Your task to perform on an android device: open chrome and create a bookmark for the current page Image 0: 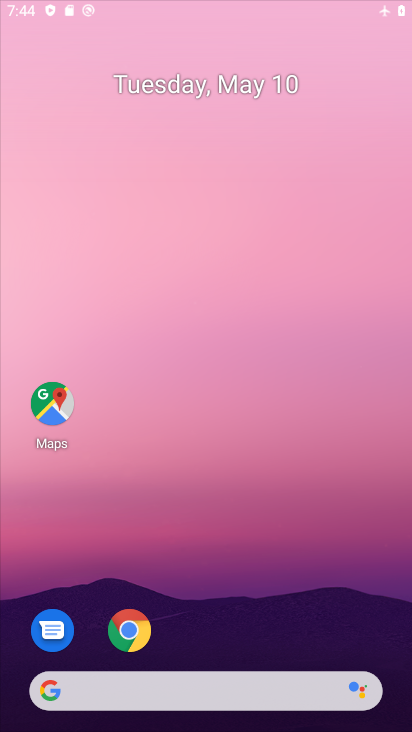
Step 0: drag from (178, 657) to (102, 2)
Your task to perform on an android device: open chrome and create a bookmark for the current page Image 1: 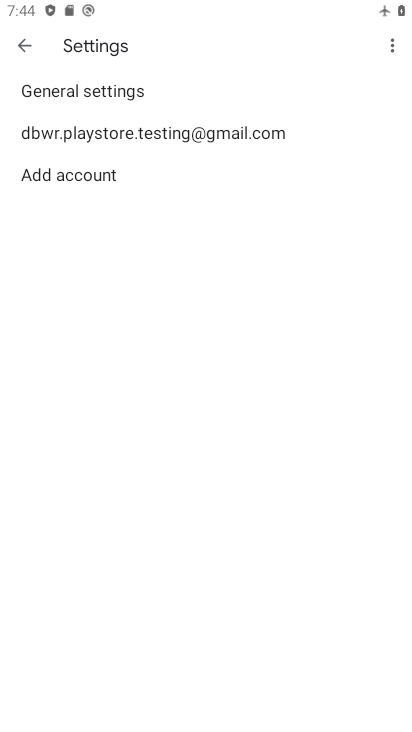
Step 1: press home button
Your task to perform on an android device: open chrome and create a bookmark for the current page Image 2: 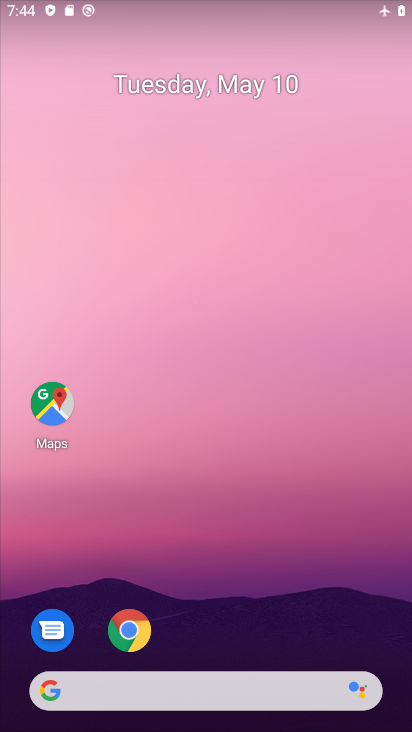
Step 2: click (135, 625)
Your task to perform on an android device: open chrome and create a bookmark for the current page Image 3: 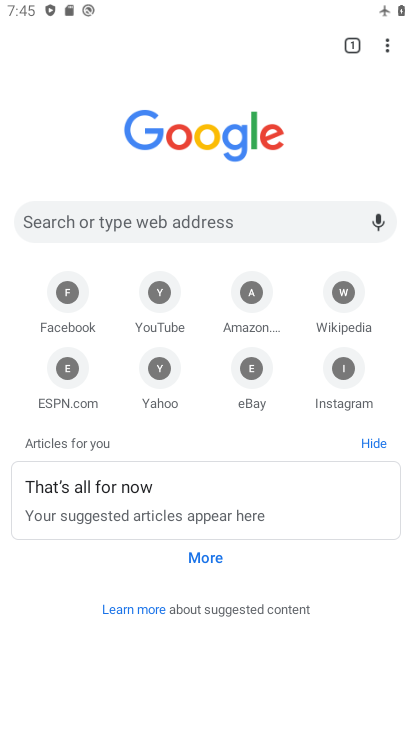
Step 3: click (385, 38)
Your task to perform on an android device: open chrome and create a bookmark for the current page Image 4: 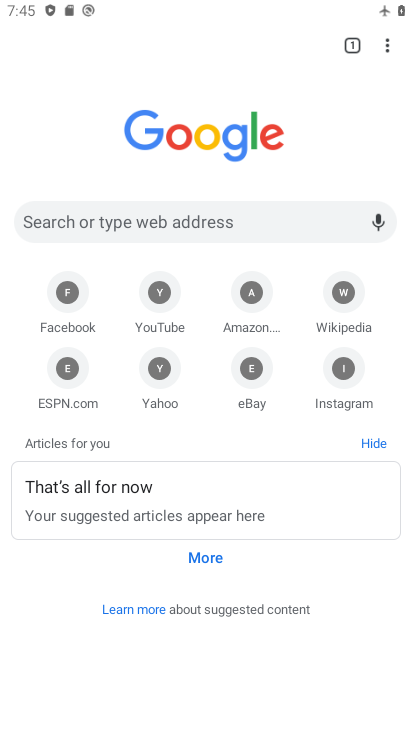
Step 4: click (385, 38)
Your task to perform on an android device: open chrome and create a bookmark for the current page Image 5: 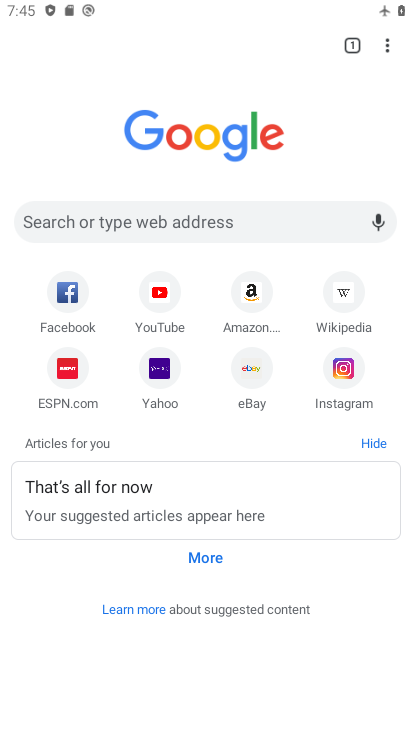
Step 5: task complete